Your task to perform on an android device: What's the weather today? Image 0: 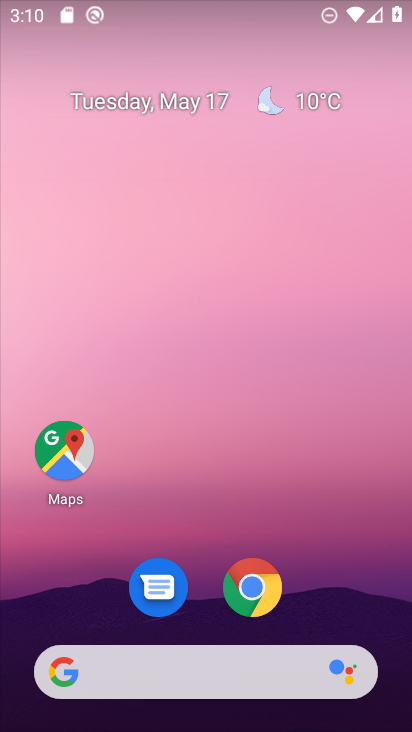
Step 0: drag from (331, 566) to (251, 21)
Your task to perform on an android device: What's the weather today? Image 1: 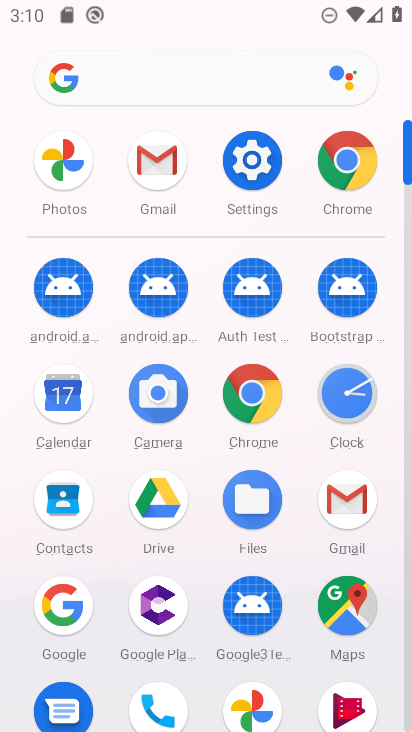
Step 1: drag from (10, 611) to (38, 261)
Your task to perform on an android device: What's the weather today? Image 2: 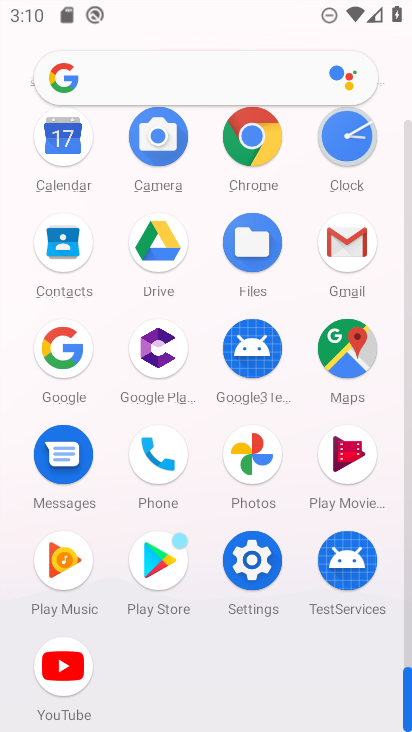
Step 2: click (251, 135)
Your task to perform on an android device: What's the weather today? Image 3: 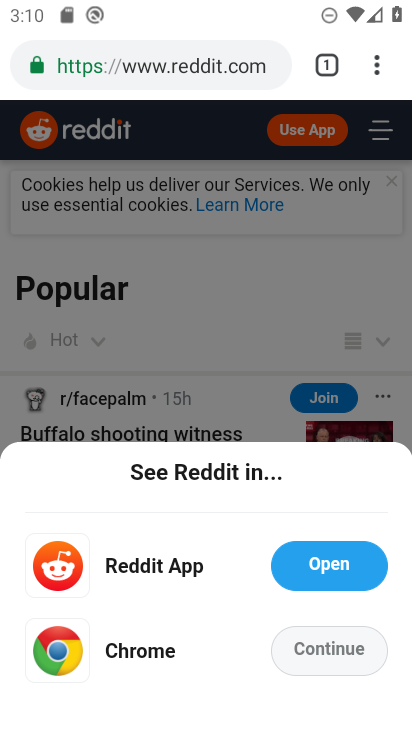
Step 3: click (198, 71)
Your task to perform on an android device: What's the weather today? Image 4: 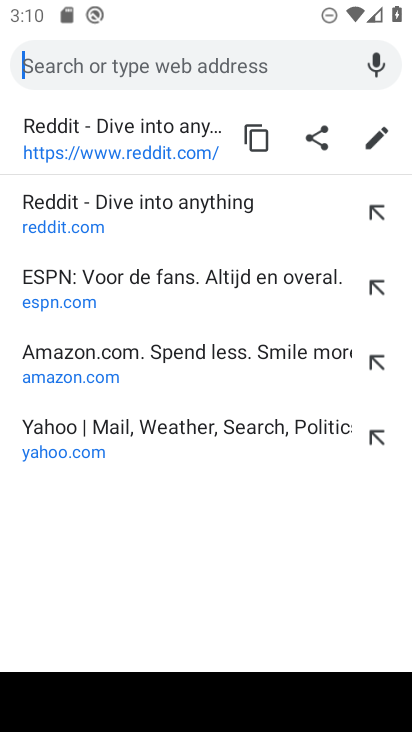
Step 4: type "What's the weather today?"
Your task to perform on an android device: What's the weather today? Image 5: 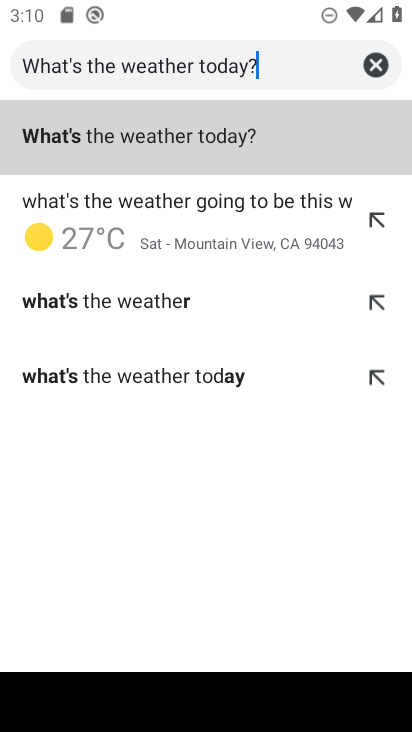
Step 5: type ""
Your task to perform on an android device: What's the weather today? Image 6: 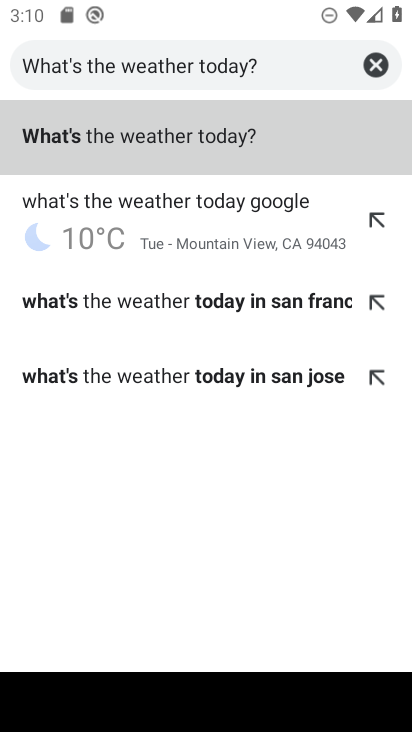
Step 6: click (210, 212)
Your task to perform on an android device: What's the weather today? Image 7: 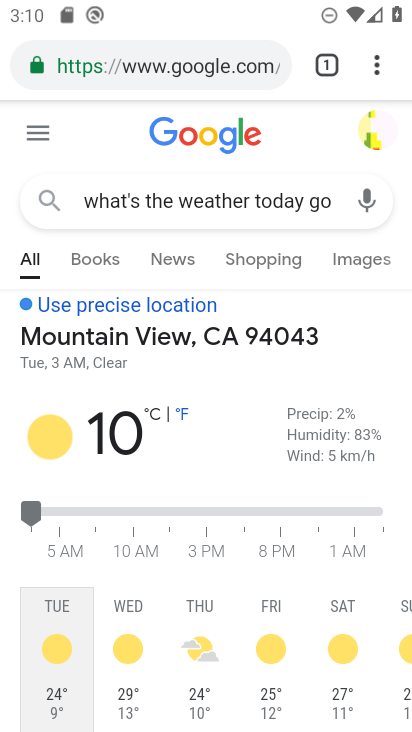
Step 7: task complete